Your task to perform on an android device: Open the calendar app, open the side menu, and click the "Day" option Image 0: 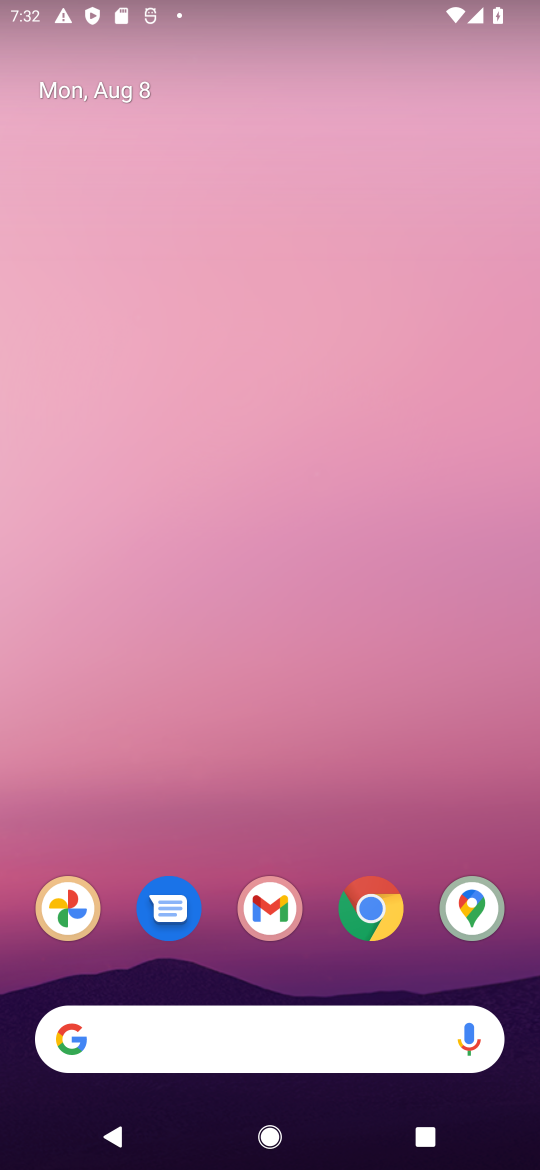
Step 0: click (115, 98)
Your task to perform on an android device: Open the calendar app, open the side menu, and click the "Day" option Image 1: 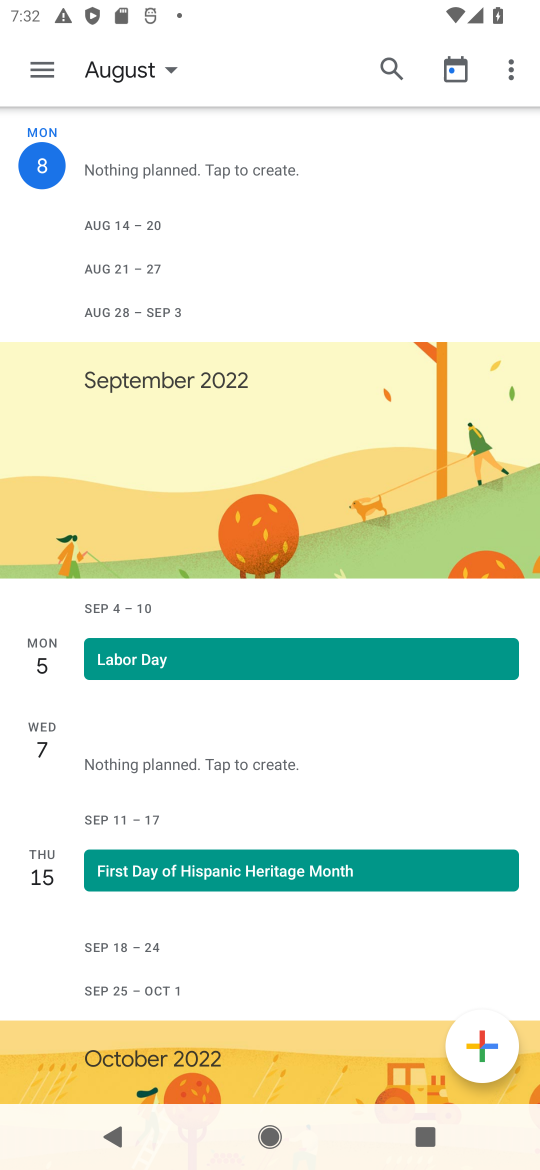
Step 1: click (42, 72)
Your task to perform on an android device: Open the calendar app, open the side menu, and click the "Day" option Image 2: 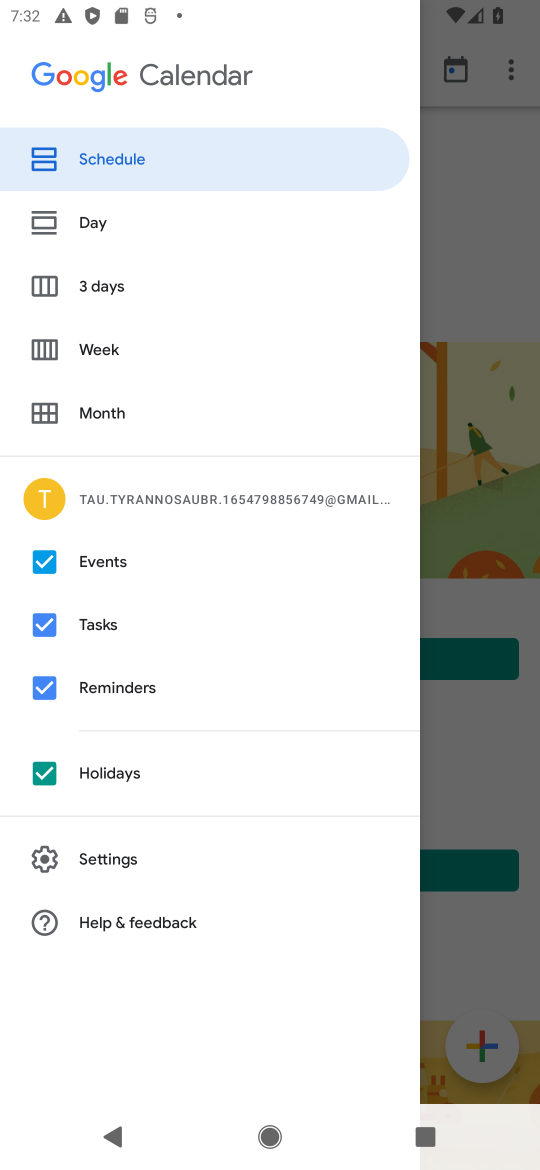
Step 2: click (91, 242)
Your task to perform on an android device: Open the calendar app, open the side menu, and click the "Day" option Image 3: 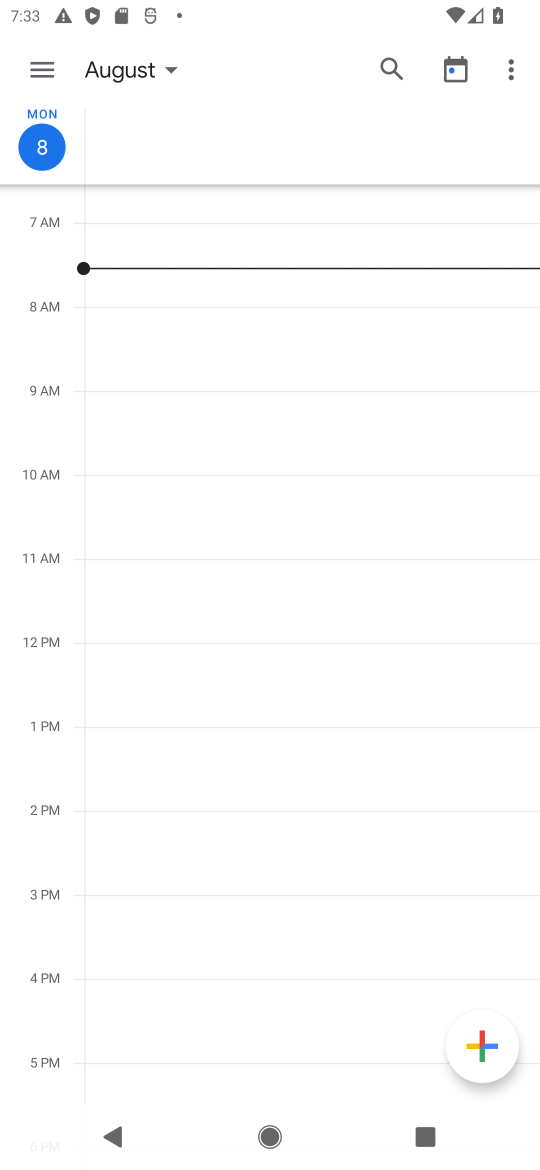
Step 3: task complete